Your task to perform on an android device: Go to ESPN.com Image 0: 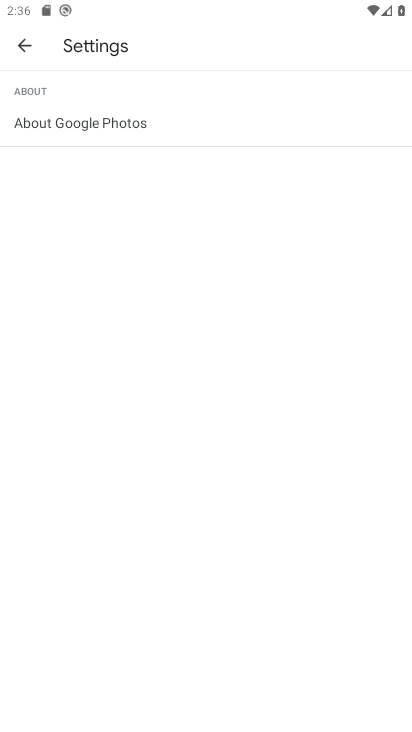
Step 0: press home button
Your task to perform on an android device: Go to ESPN.com Image 1: 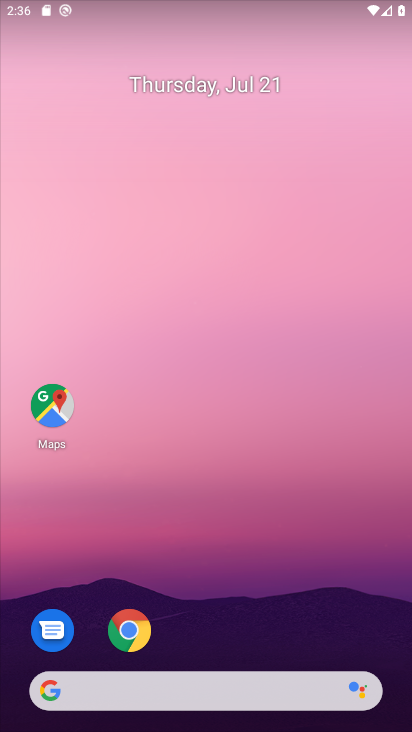
Step 1: drag from (228, 540) to (210, 147)
Your task to perform on an android device: Go to ESPN.com Image 2: 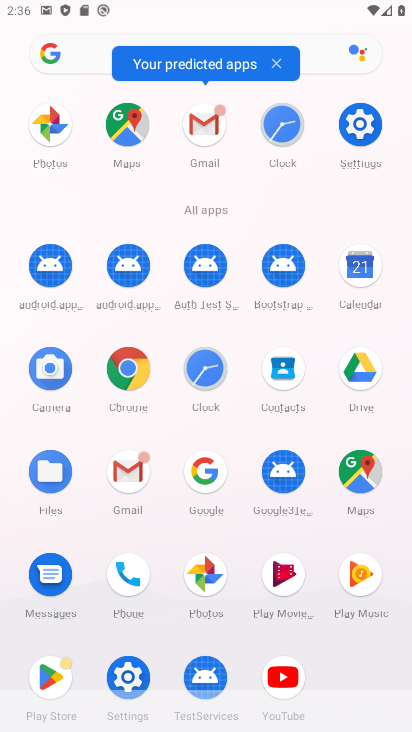
Step 2: click (126, 383)
Your task to perform on an android device: Go to ESPN.com Image 3: 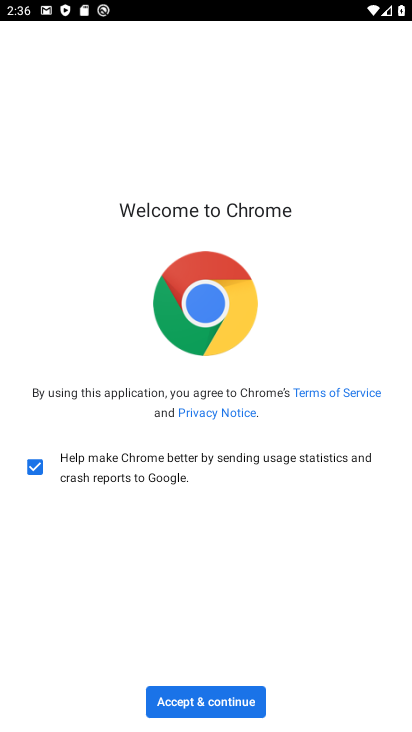
Step 3: click (219, 703)
Your task to perform on an android device: Go to ESPN.com Image 4: 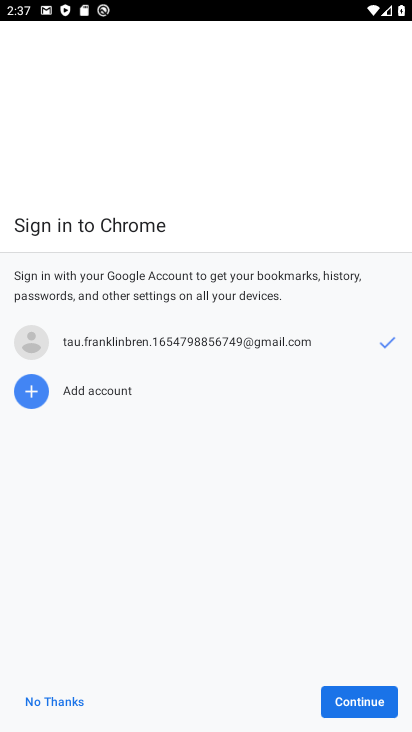
Step 4: click (361, 700)
Your task to perform on an android device: Go to ESPN.com Image 5: 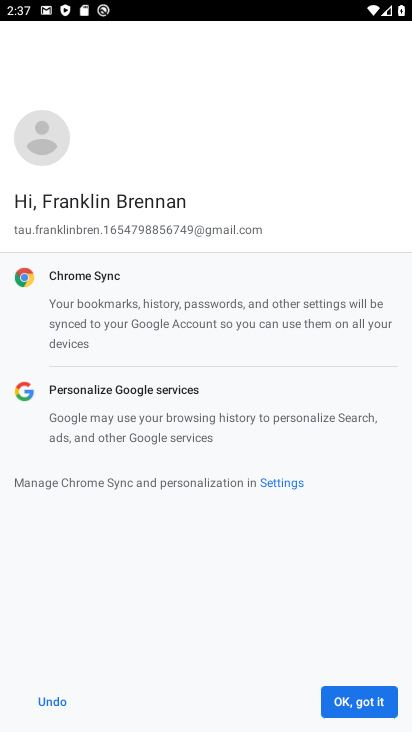
Step 5: click (360, 700)
Your task to perform on an android device: Go to ESPN.com Image 6: 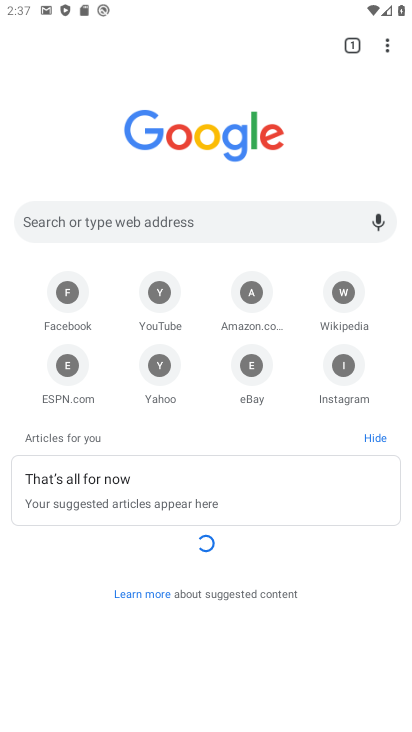
Step 6: click (67, 380)
Your task to perform on an android device: Go to ESPN.com Image 7: 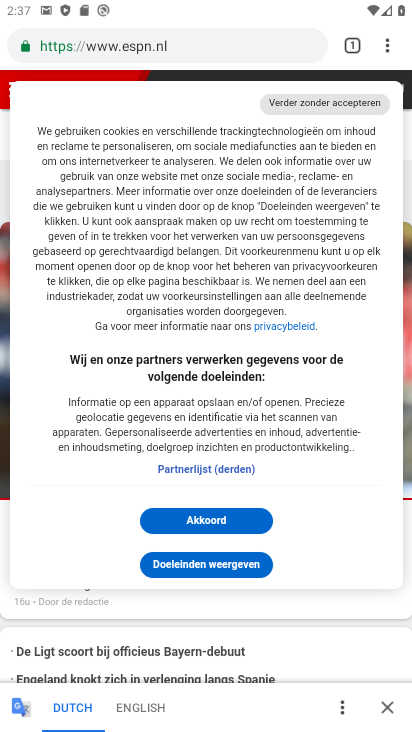
Step 7: task complete